Your task to perform on an android device: star an email in the gmail app Image 0: 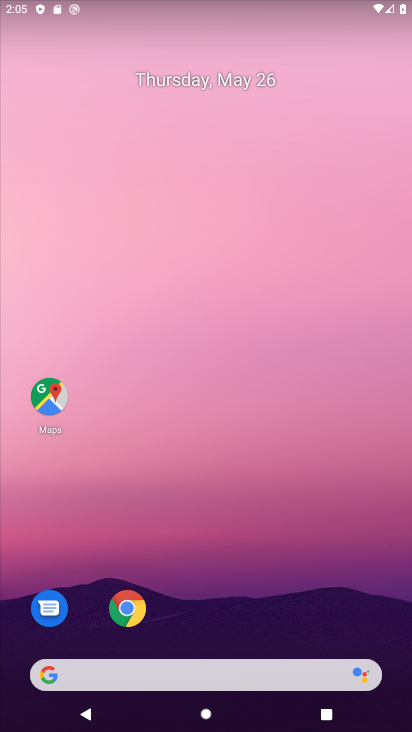
Step 0: drag from (213, 558) to (35, 0)
Your task to perform on an android device: star an email in the gmail app Image 1: 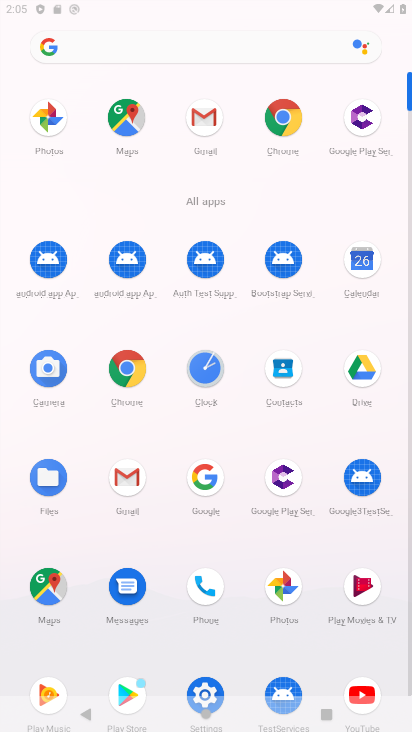
Step 1: drag from (239, 539) to (61, 49)
Your task to perform on an android device: star an email in the gmail app Image 2: 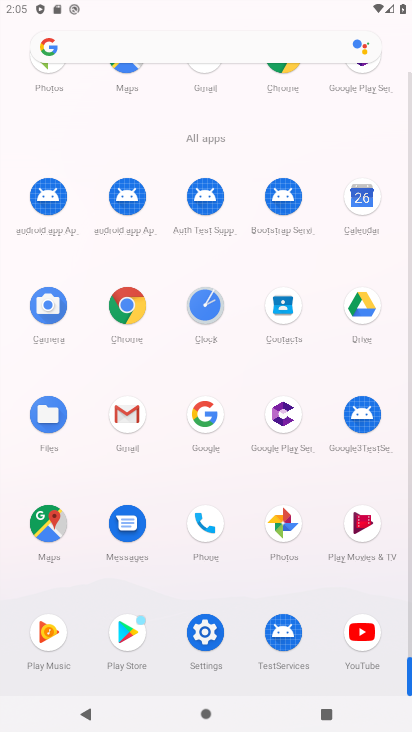
Step 2: click (121, 412)
Your task to perform on an android device: star an email in the gmail app Image 3: 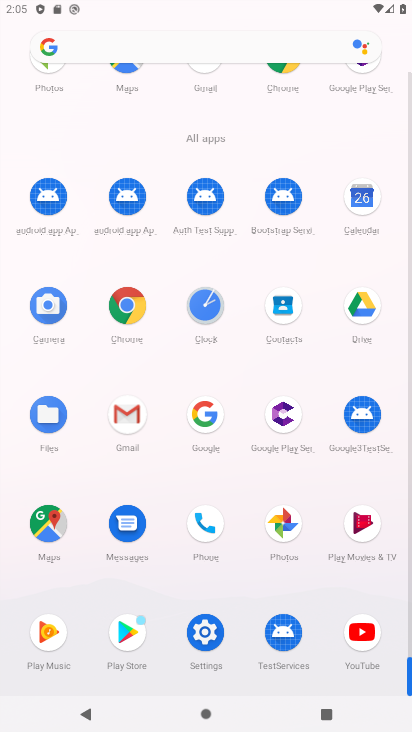
Step 3: click (120, 411)
Your task to perform on an android device: star an email in the gmail app Image 4: 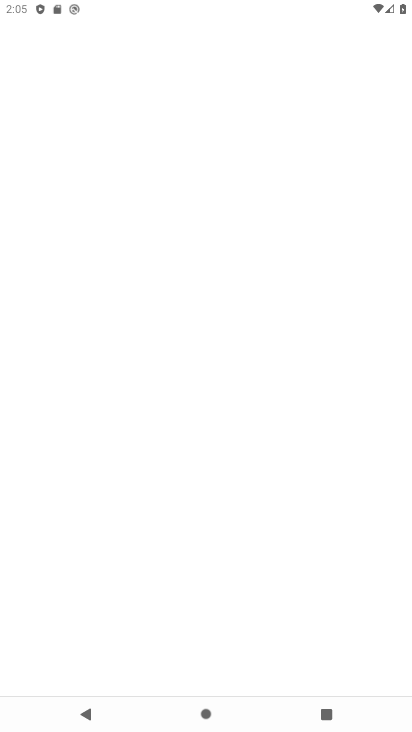
Step 4: click (126, 414)
Your task to perform on an android device: star an email in the gmail app Image 5: 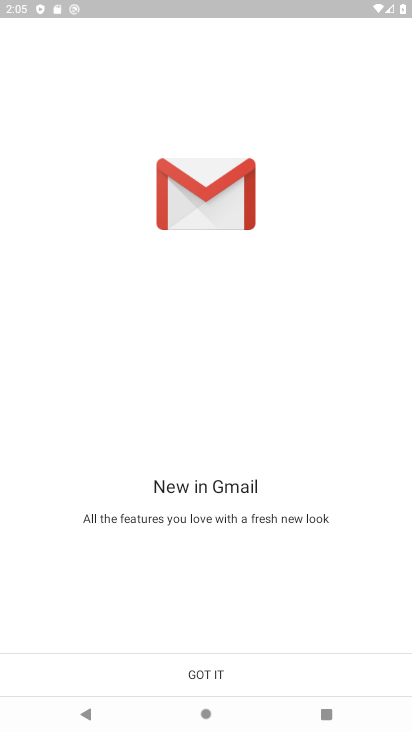
Step 5: click (209, 669)
Your task to perform on an android device: star an email in the gmail app Image 6: 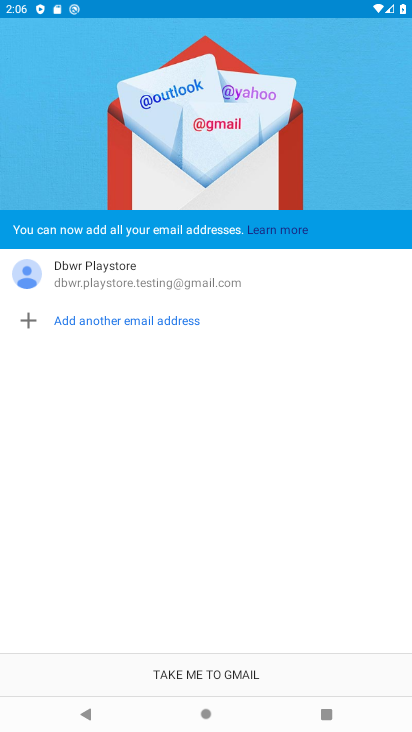
Step 6: click (212, 670)
Your task to perform on an android device: star an email in the gmail app Image 7: 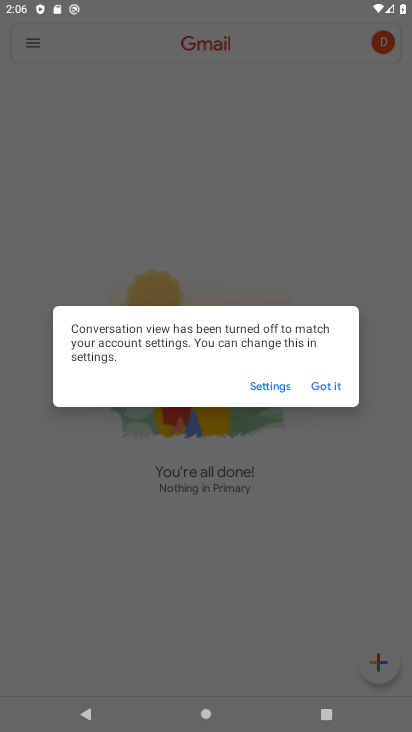
Step 7: click (322, 382)
Your task to perform on an android device: star an email in the gmail app Image 8: 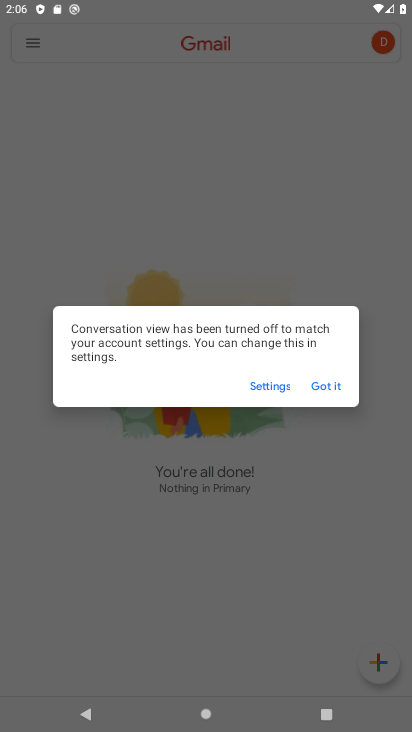
Step 8: click (322, 382)
Your task to perform on an android device: star an email in the gmail app Image 9: 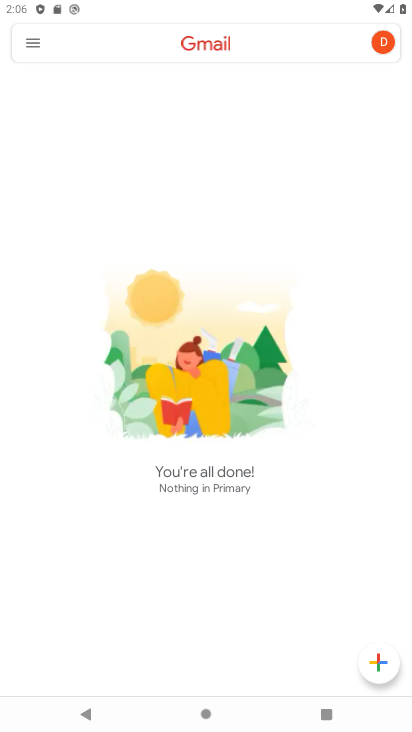
Step 9: click (324, 385)
Your task to perform on an android device: star an email in the gmail app Image 10: 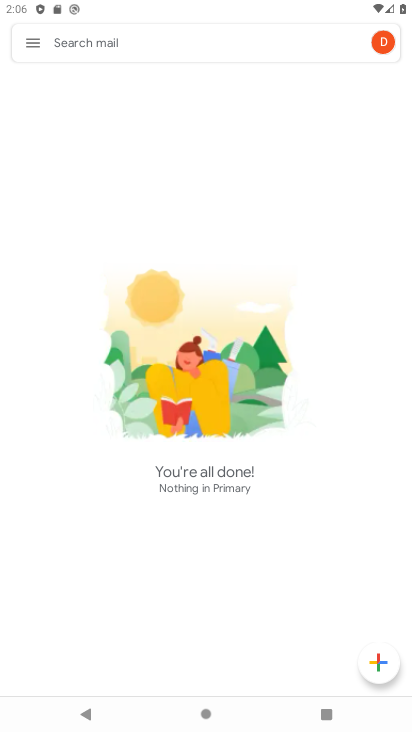
Step 10: click (34, 47)
Your task to perform on an android device: star an email in the gmail app Image 11: 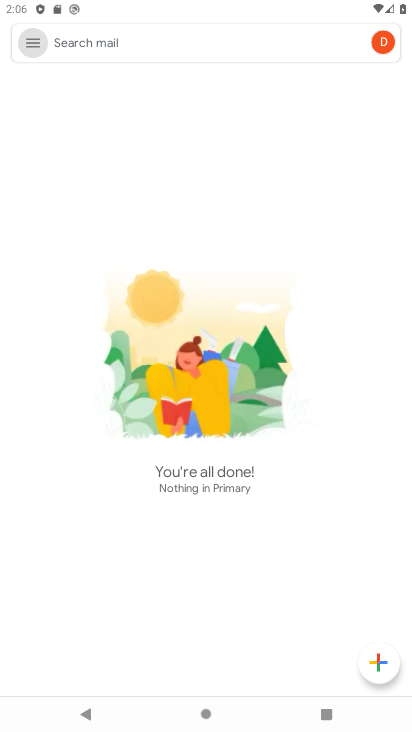
Step 11: click (34, 47)
Your task to perform on an android device: star an email in the gmail app Image 12: 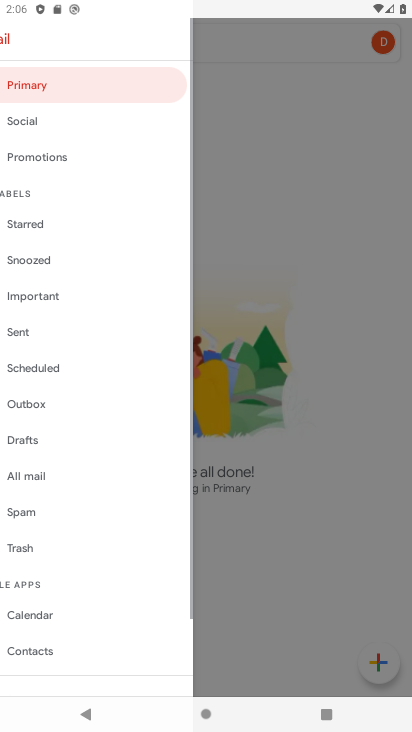
Step 12: click (34, 47)
Your task to perform on an android device: star an email in the gmail app Image 13: 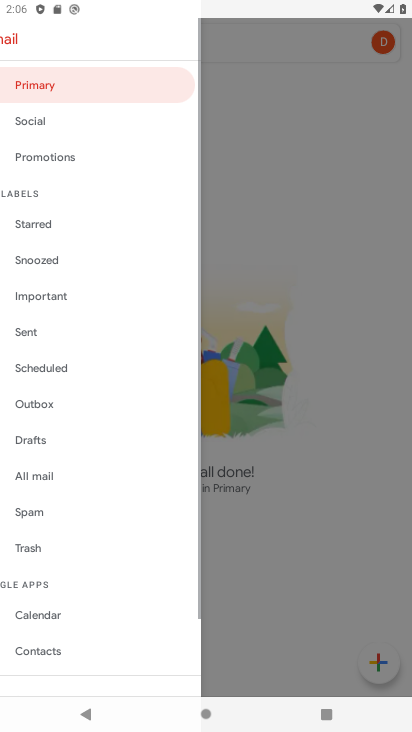
Step 13: click (34, 47)
Your task to perform on an android device: star an email in the gmail app Image 14: 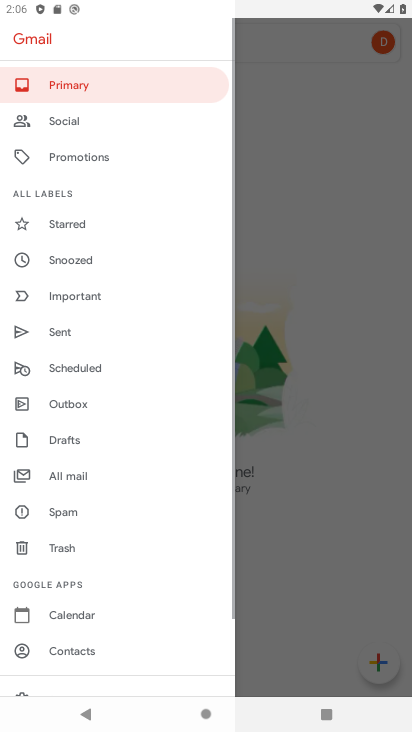
Step 14: click (34, 47)
Your task to perform on an android device: star an email in the gmail app Image 15: 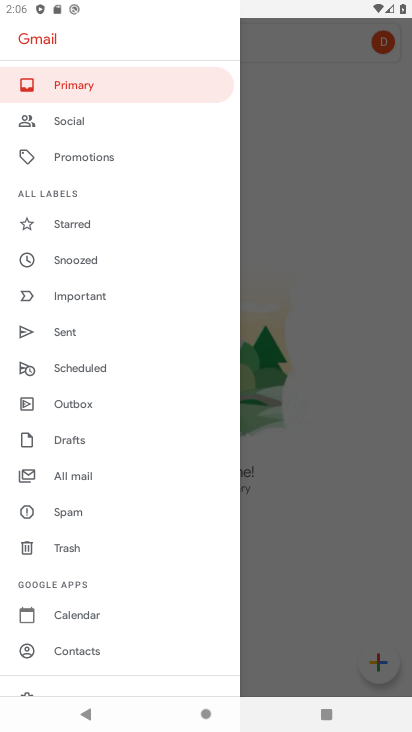
Step 15: drag from (84, 583) to (17, 306)
Your task to perform on an android device: star an email in the gmail app Image 16: 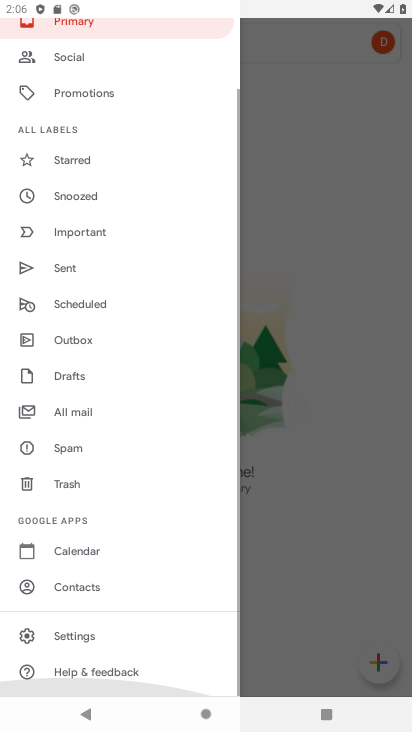
Step 16: drag from (104, 419) to (104, 357)
Your task to perform on an android device: star an email in the gmail app Image 17: 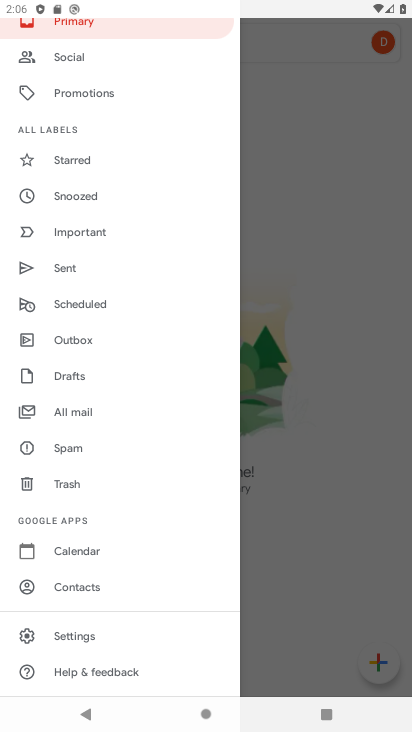
Step 17: click (73, 408)
Your task to perform on an android device: star an email in the gmail app Image 18: 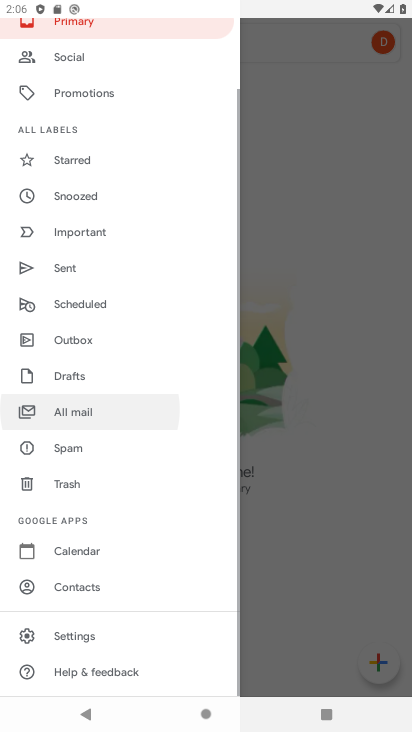
Step 18: click (73, 408)
Your task to perform on an android device: star an email in the gmail app Image 19: 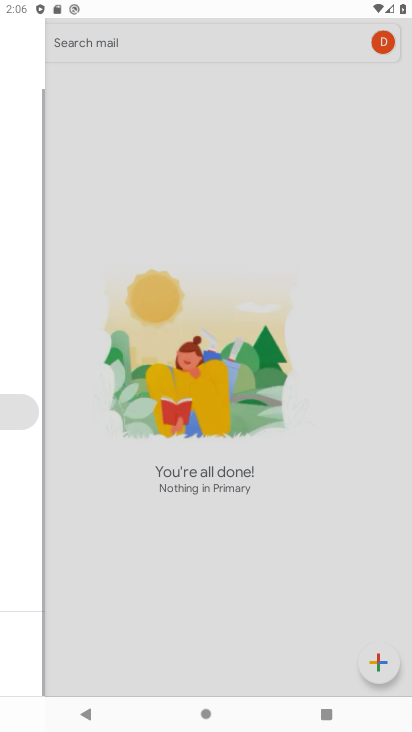
Step 19: click (73, 408)
Your task to perform on an android device: star an email in the gmail app Image 20: 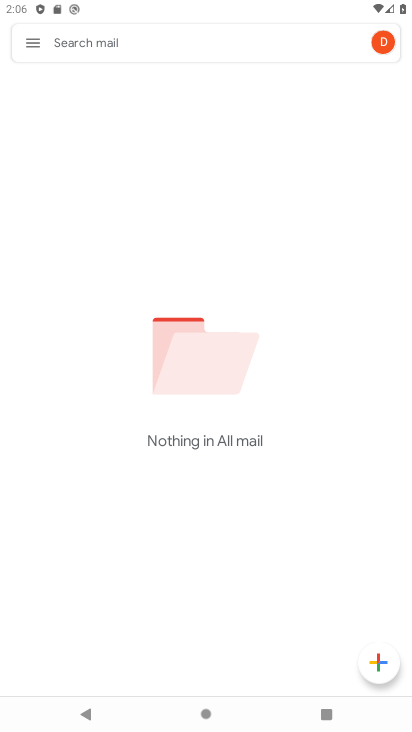
Step 20: task complete